Your task to perform on an android device: open app "eBay: The shopping marketplace" Image 0: 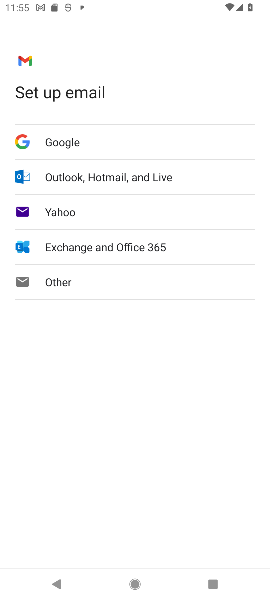
Step 0: press back button
Your task to perform on an android device: open app "eBay: The shopping marketplace" Image 1: 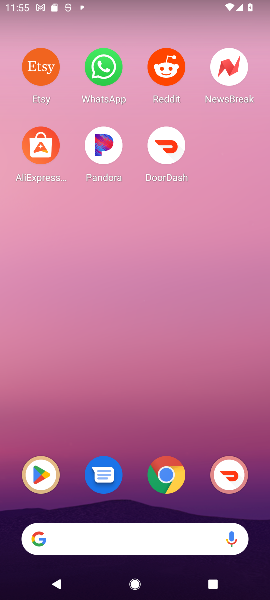
Step 1: click (41, 473)
Your task to perform on an android device: open app "eBay: The shopping marketplace" Image 2: 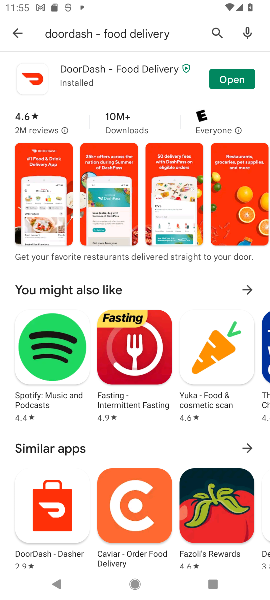
Step 2: click (218, 29)
Your task to perform on an android device: open app "eBay: The shopping marketplace" Image 3: 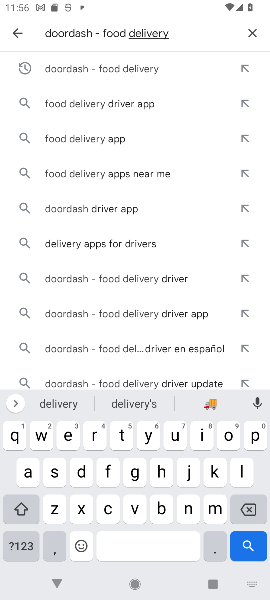
Step 3: click (253, 30)
Your task to perform on an android device: open app "eBay: The shopping marketplace" Image 4: 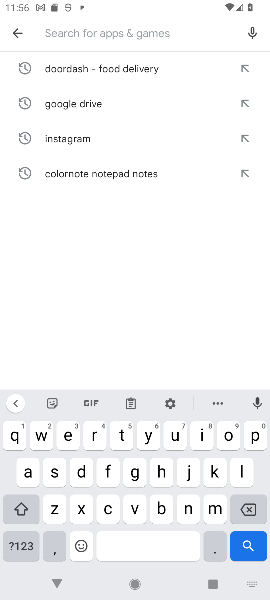
Step 4: type "eBay: The shopping marketplace"
Your task to perform on an android device: open app "eBay: The shopping marketplace" Image 5: 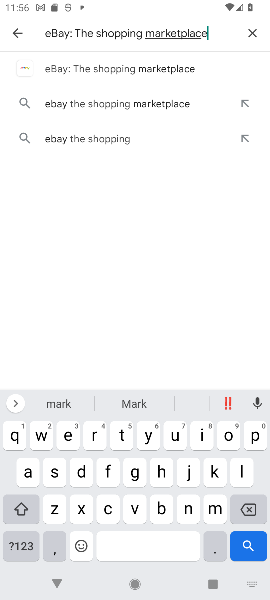
Step 5: type ""
Your task to perform on an android device: open app "eBay: The shopping marketplace" Image 6: 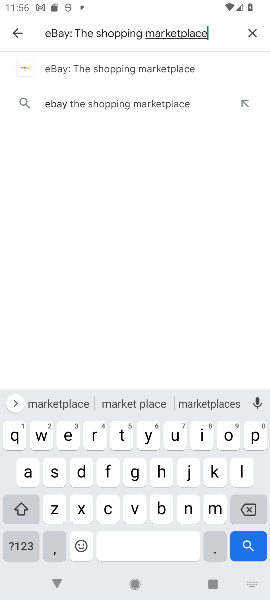
Step 6: click (146, 66)
Your task to perform on an android device: open app "eBay: The shopping marketplace" Image 7: 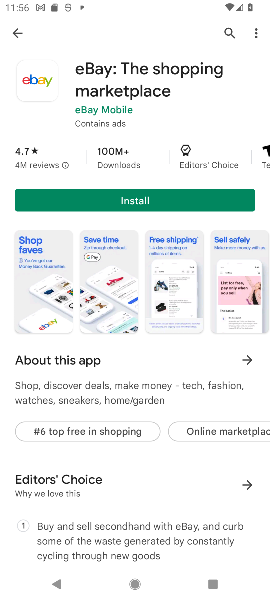
Step 7: task complete